Your task to perform on an android device: open a new tab in the chrome app Image 0: 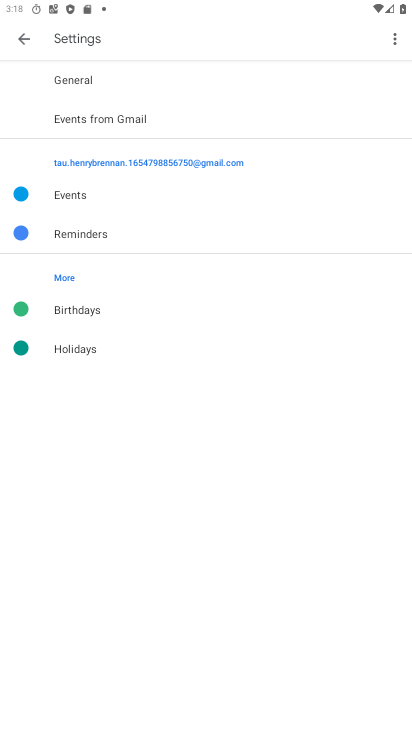
Step 0: press home button
Your task to perform on an android device: open a new tab in the chrome app Image 1: 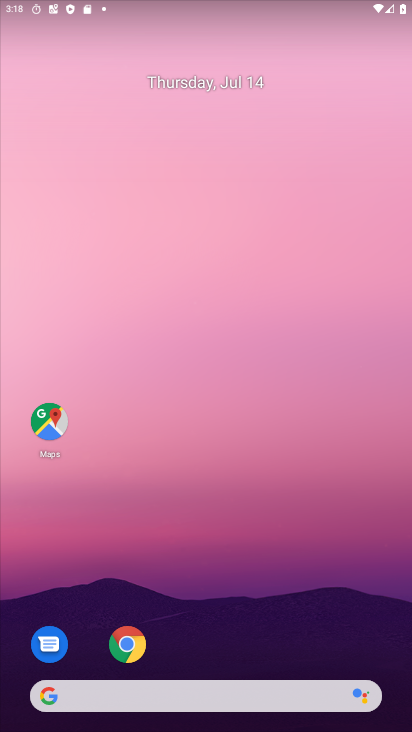
Step 1: click (124, 641)
Your task to perform on an android device: open a new tab in the chrome app Image 2: 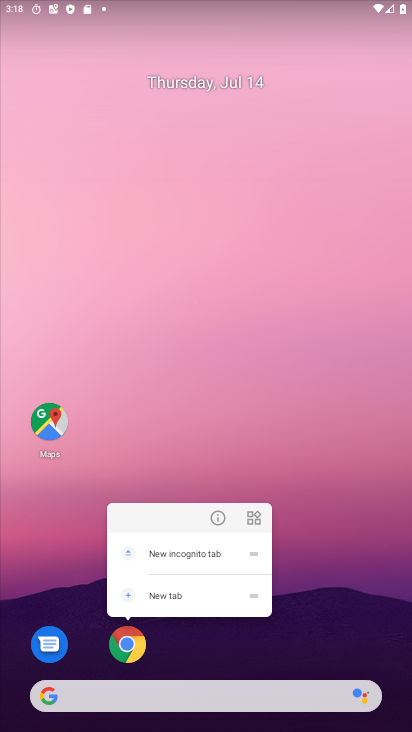
Step 2: click (139, 647)
Your task to perform on an android device: open a new tab in the chrome app Image 3: 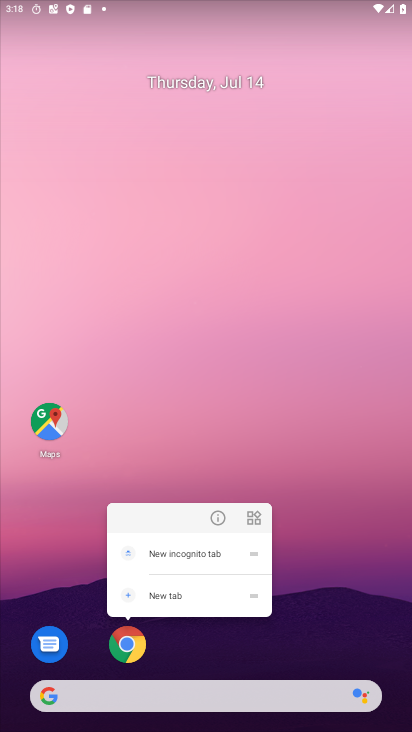
Step 3: click (138, 642)
Your task to perform on an android device: open a new tab in the chrome app Image 4: 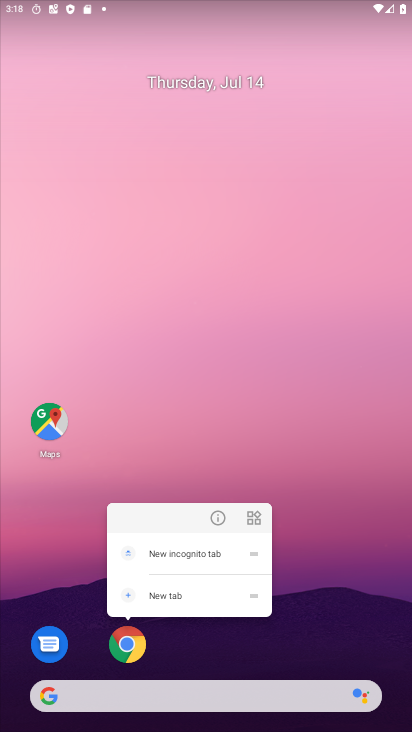
Step 4: task complete